Your task to perform on an android device: set an alarm Image 0: 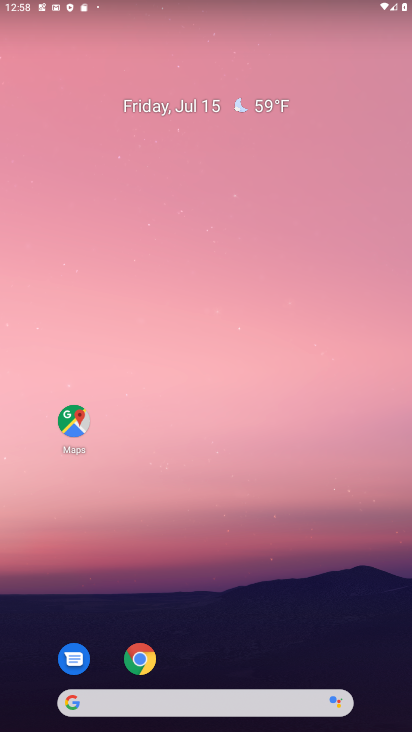
Step 0: drag from (231, 730) to (248, 415)
Your task to perform on an android device: set an alarm Image 1: 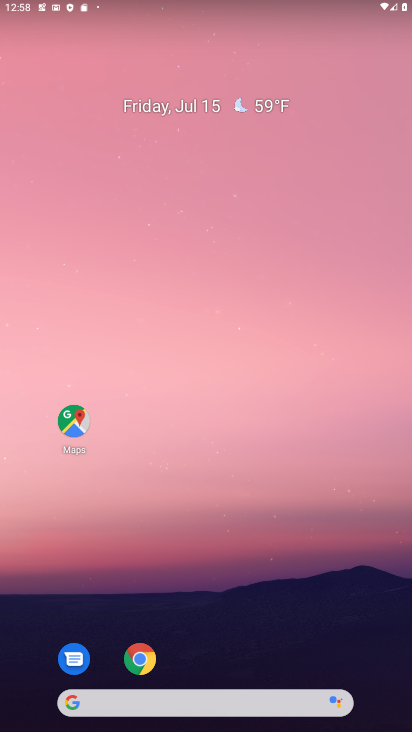
Step 1: drag from (232, 708) to (260, 227)
Your task to perform on an android device: set an alarm Image 2: 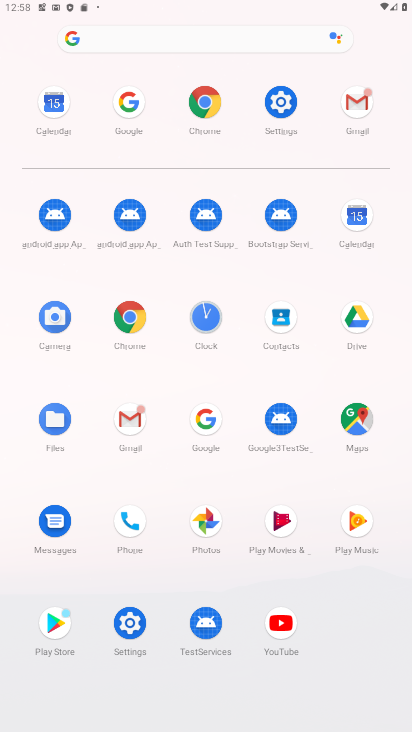
Step 2: click (208, 318)
Your task to perform on an android device: set an alarm Image 3: 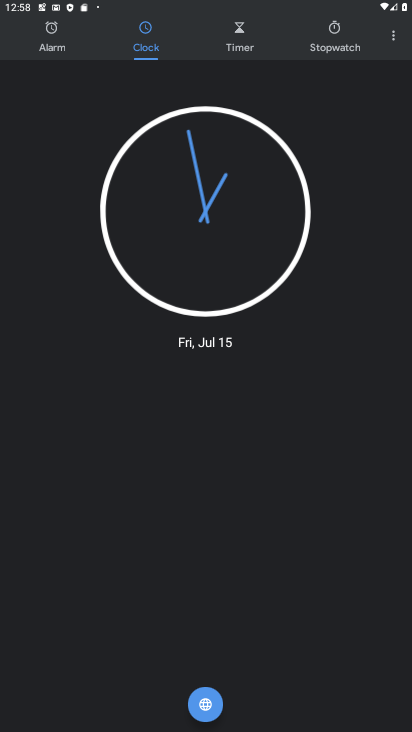
Step 3: click (47, 33)
Your task to perform on an android device: set an alarm Image 4: 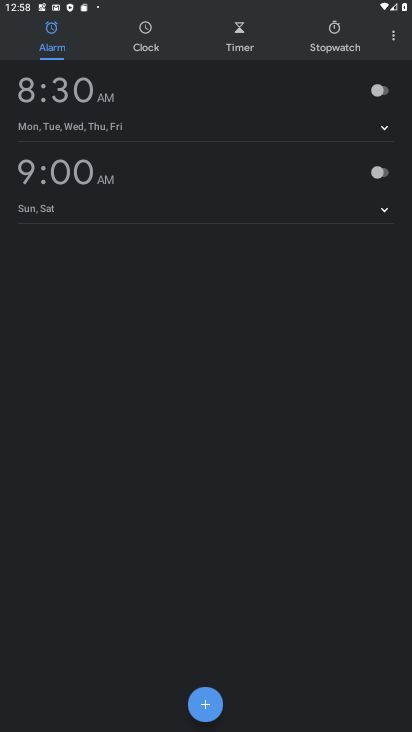
Step 4: click (209, 704)
Your task to perform on an android device: set an alarm Image 5: 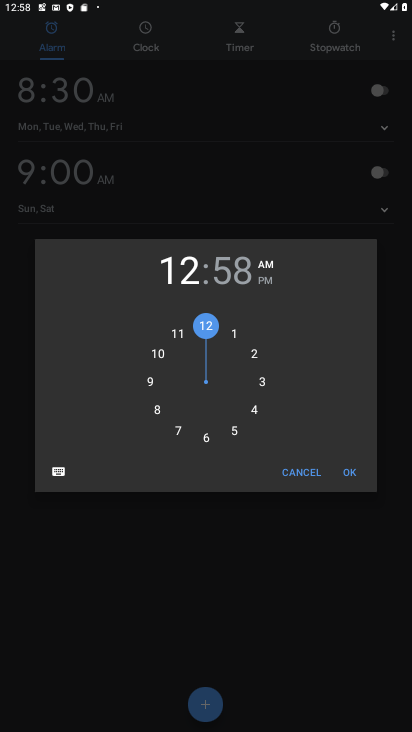
Step 5: click (150, 392)
Your task to perform on an android device: set an alarm Image 6: 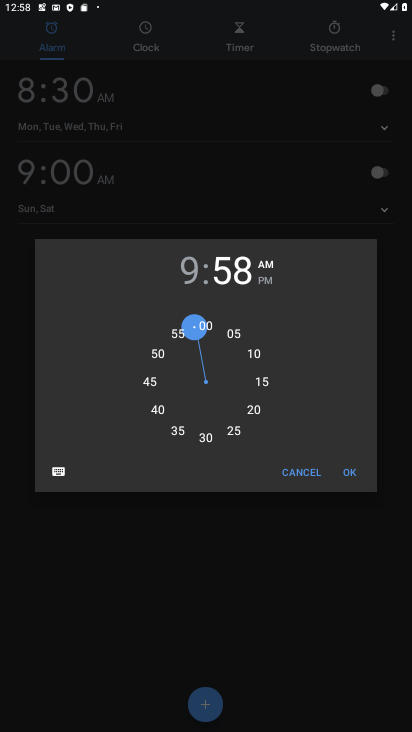
Step 6: click (351, 471)
Your task to perform on an android device: set an alarm Image 7: 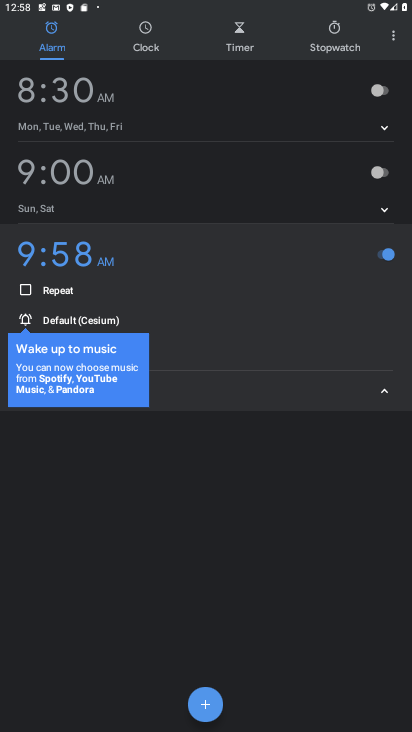
Step 7: task complete